Your task to perform on an android device: all mails in gmail Image 0: 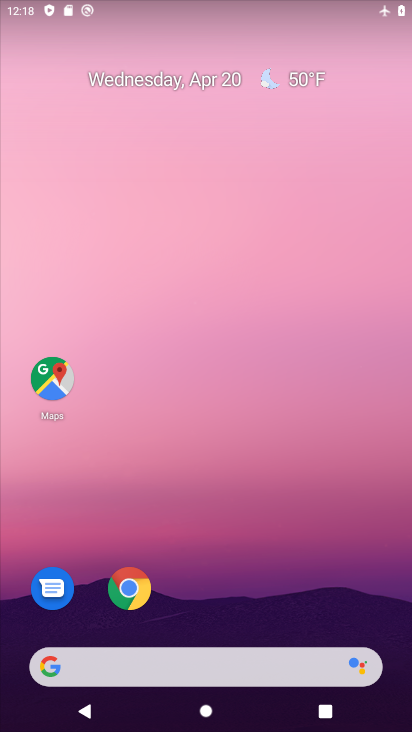
Step 0: drag from (206, 578) to (197, 131)
Your task to perform on an android device: all mails in gmail Image 1: 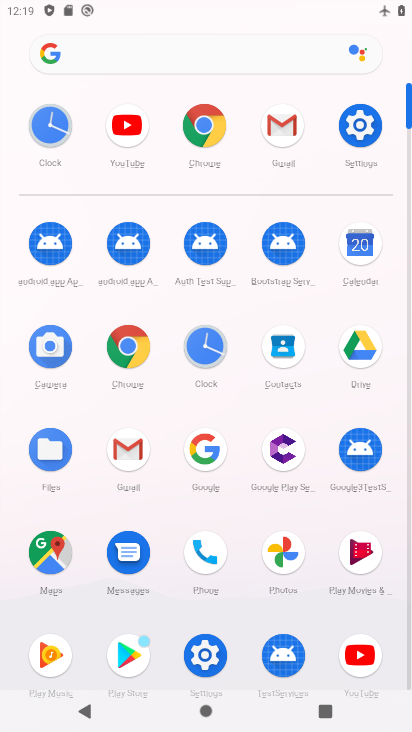
Step 1: click (131, 443)
Your task to perform on an android device: all mails in gmail Image 2: 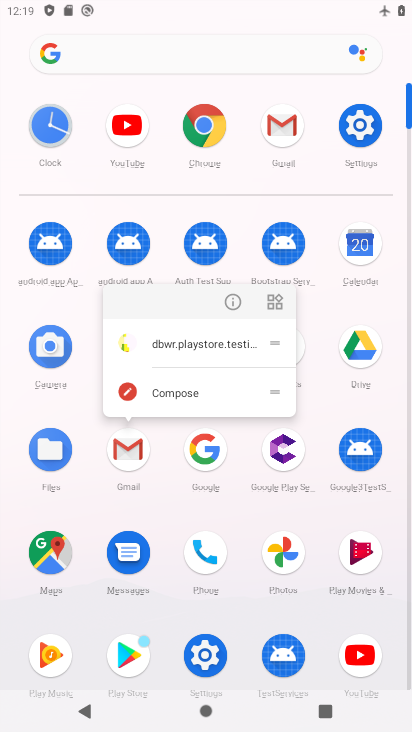
Step 2: click (123, 443)
Your task to perform on an android device: all mails in gmail Image 3: 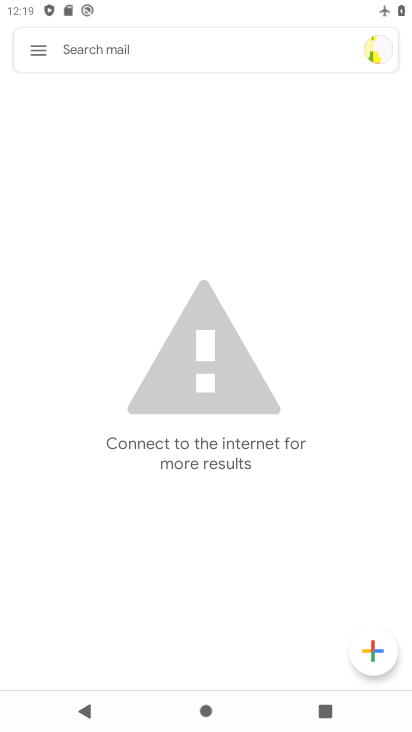
Step 3: click (38, 47)
Your task to perform on an android device: all mails in gmail Image 4: 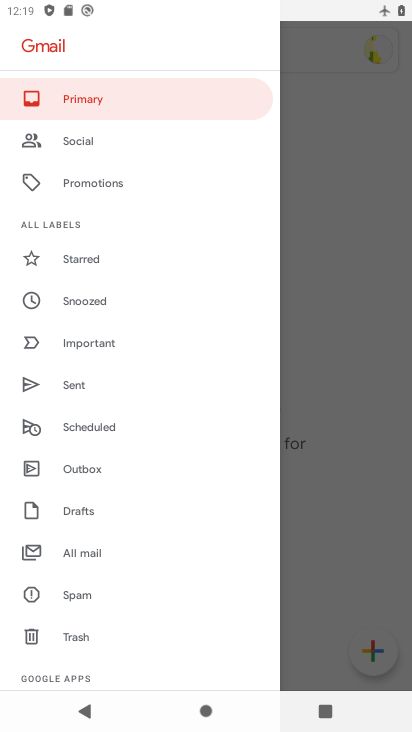
Step 4: click (84, 550)
Your task to perform on an android device: all mails in gmail Image 5: 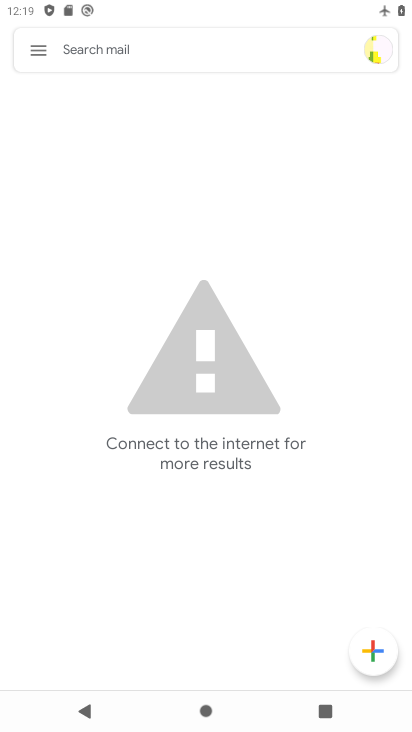
Step 5: task complete